Your task to perform on an android device: open app "Mercado Libre" (install if not already installed) Image 0: 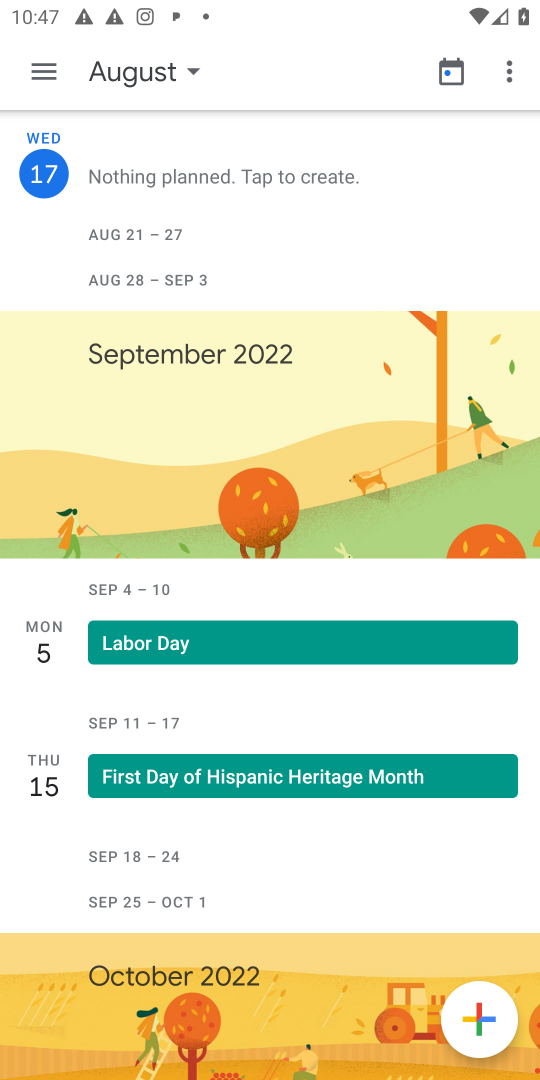
Step 0: press home button
Your task to perform on an android device: open app "Mercado Libre" (install if not already installed) Image 1: 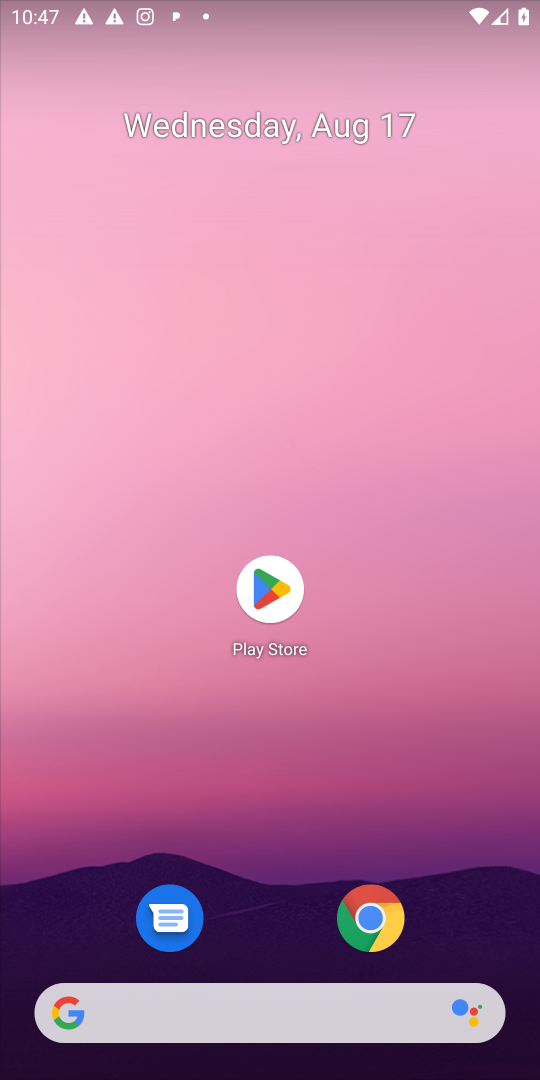
Step 1: click (274, 584)
Your task to perform on an android device: open app "Mercado Libre" (install if not already installed) Image 2: 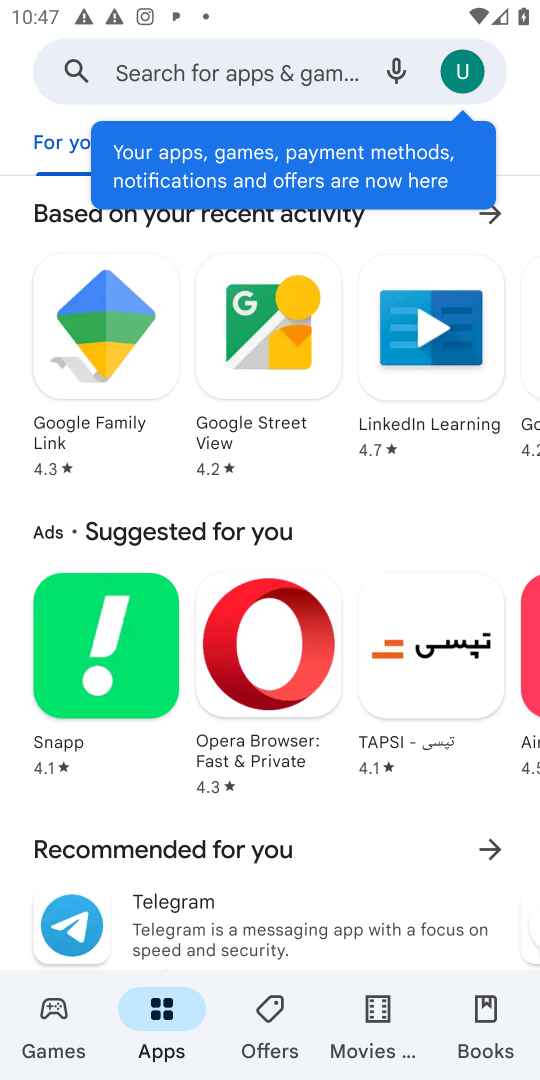
Step 2: click (272, 66)
Your task to perform on an android device: open app "Mercado Libre" (install if not already installed) Image 3: 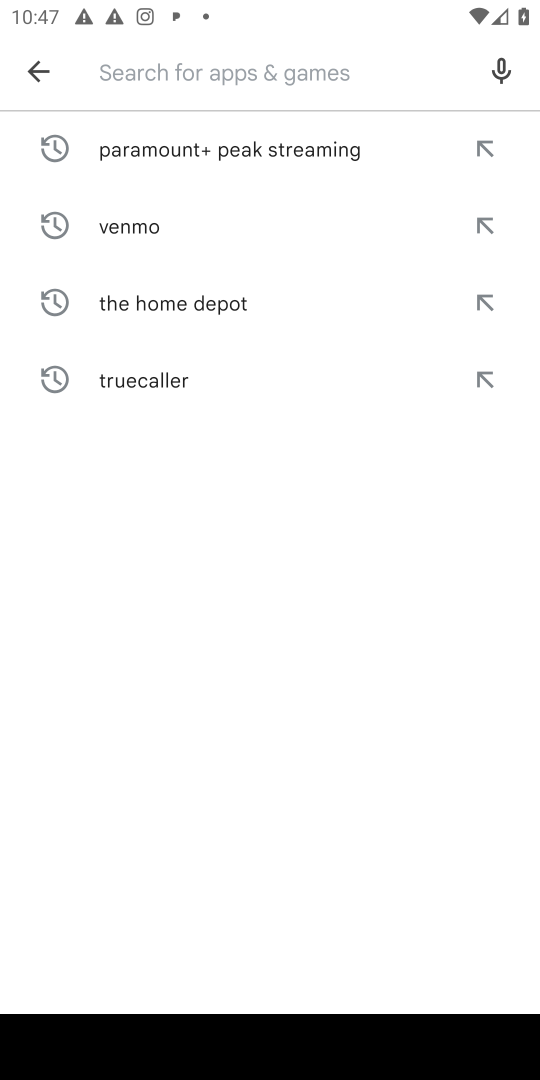
Step 3: type "Mercado Libre"
Your task to perform on an android device: open app "Mercado Libre" (install if not already installed) Image 4: 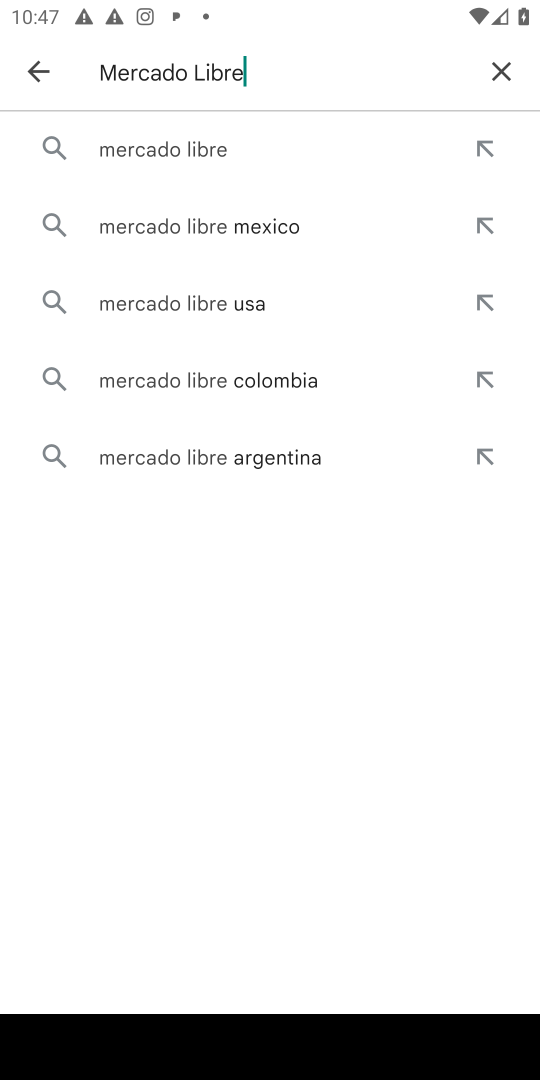
Step 4: click (198, 155)
Your task to perform on an android device: open app "Mercado Libre" (install if not already installed) Image 5: 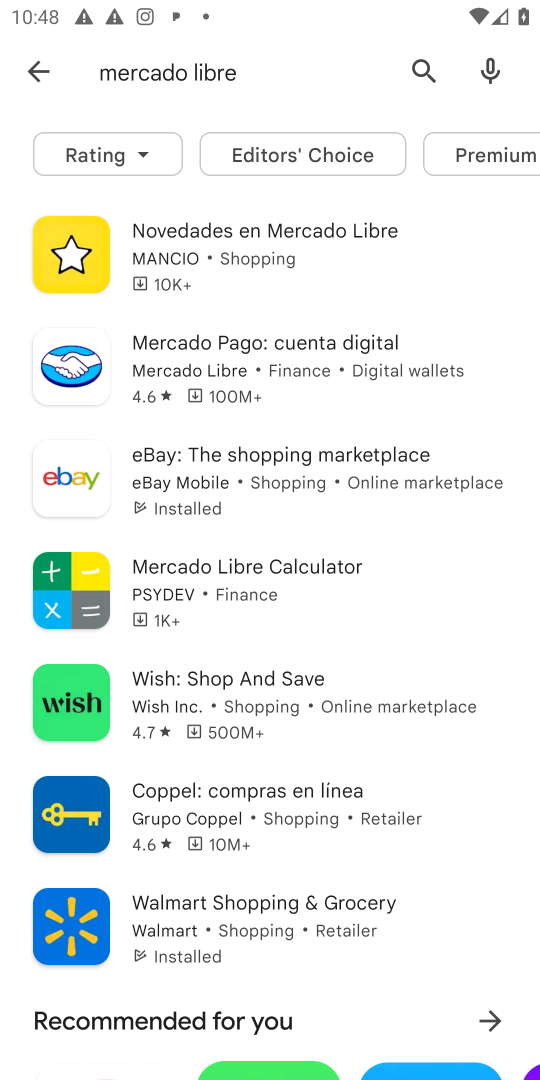
Step 5: task complete